Your task to perform on an android device: Look up the best rated Nike shoes on Nike.com Image 0: 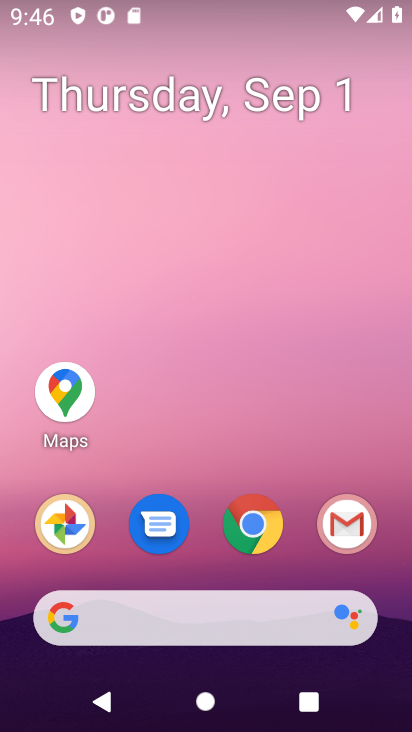
Step 0: drag from (395, 587) to (385, 71)
Your task to perform on an android device: Look up the best rated Nike shoes on Nike.com Image 1: 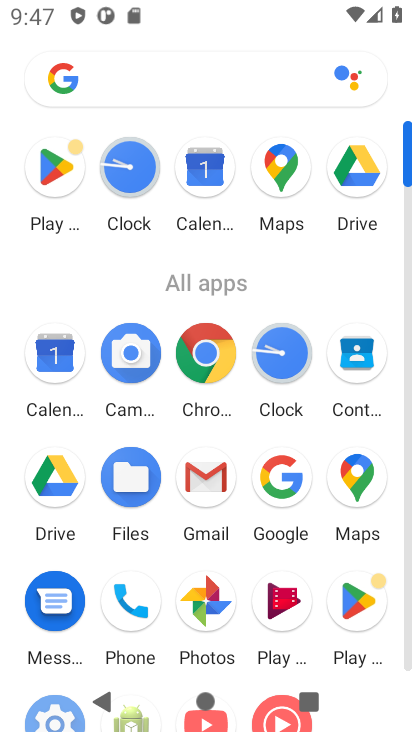
Step 1: click (207, 353)
Your task to perform on an android device: Look up the best rated Nike shoes on Nike.com Image 2: 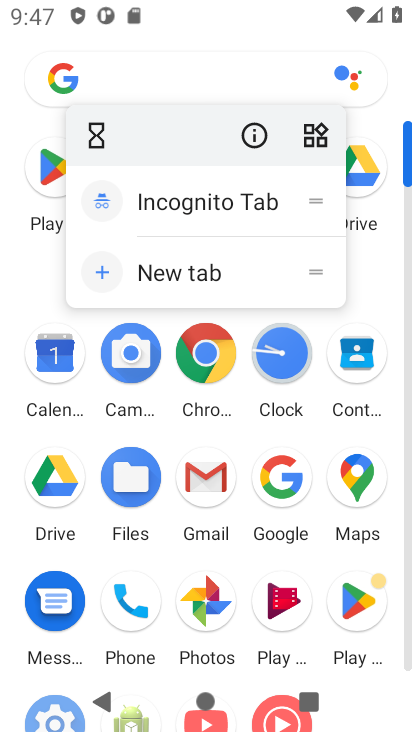
Step 2: click (196, 266)
Your task to perform on an android device: Look up the best rated Nike shoes on Nike.com Image 3: 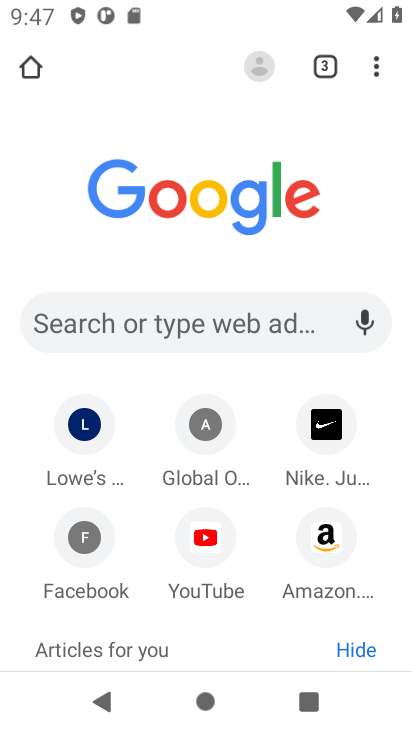
Step 3: click (227, 320)
Your task to perform on an android device: Look up the best rated Nike shoes on Nike.com Image 4: 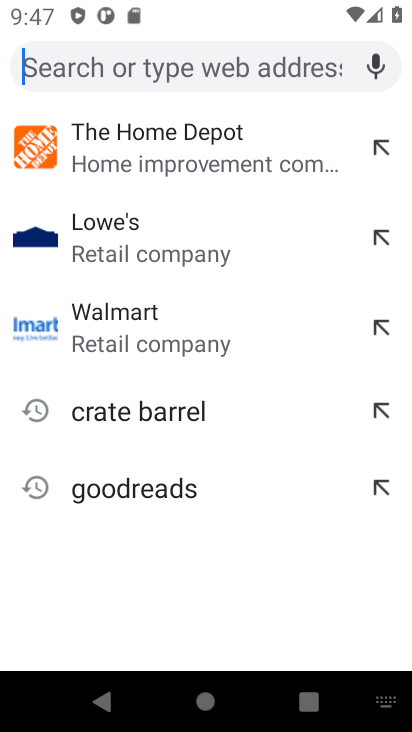
Step 4: type "nike.com"
Your task to perform on an android device: Look up the best rated Nike shoes on Nike.com Image 5: 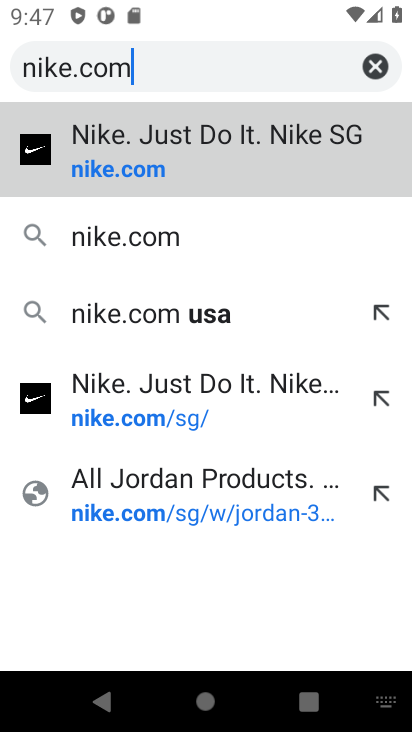
Step 5: press enter
Your task to perform on an android device: Look up the best rated Nike shoes on Nike.com Image 6: 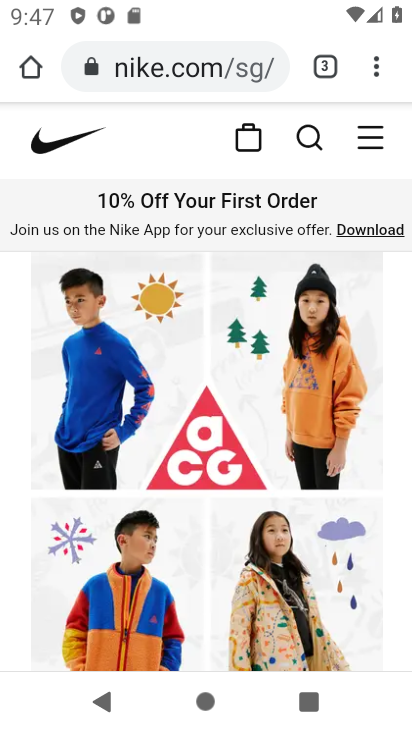
Step 6: click (311, 130)
Your task to perform on an android device: Look up the best rated Nike shoes on Nike.com Image 7: 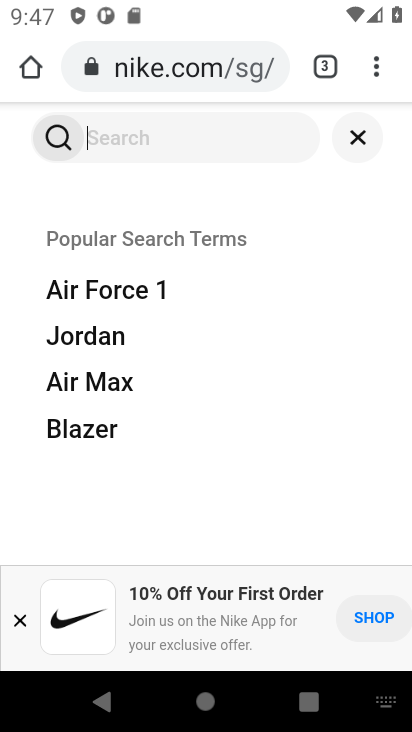
Step 7: press enter
Your task to perform on an android device: Look up the best rated Nike shoes on Nike.com Image 8: 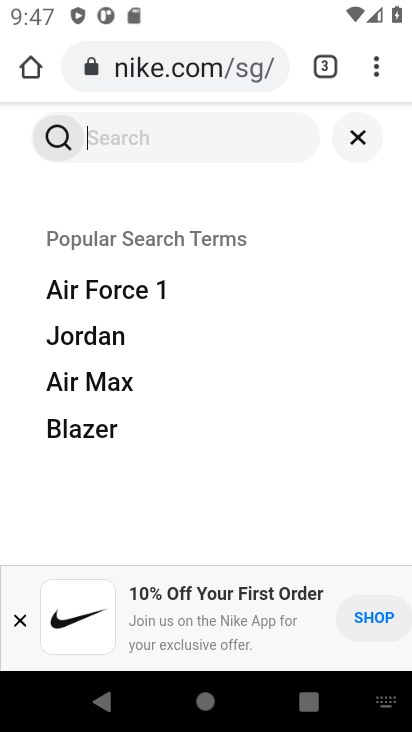
Step 8: type "best rated Nike shoes"
Your task to perform on an android device: Look up the best rated Nike shoes on Nike.com Image 9: 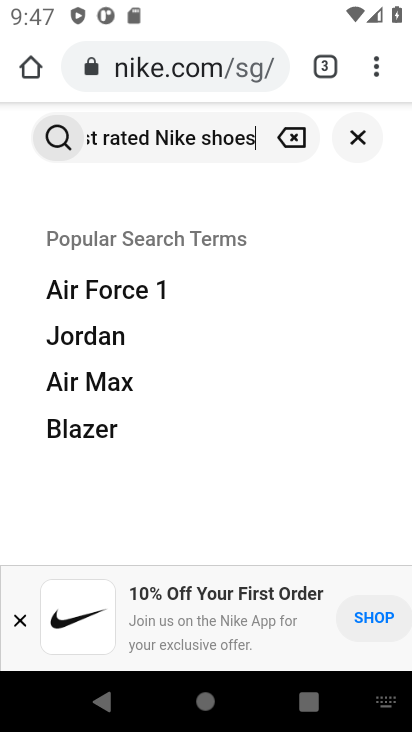
Step 9: click (60, 129)
Your task to perform on an android device: Look up the best rated Nike shoes on Nike.com Image 10: 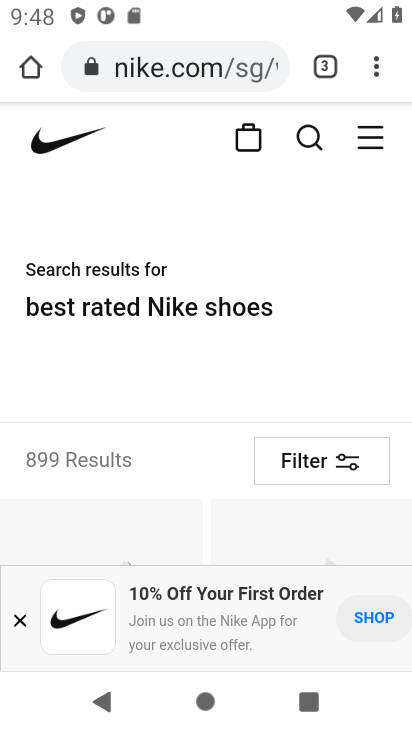
Step 10: task complete